Your task to perform on an android device: Go to ESPN.com Image 0: 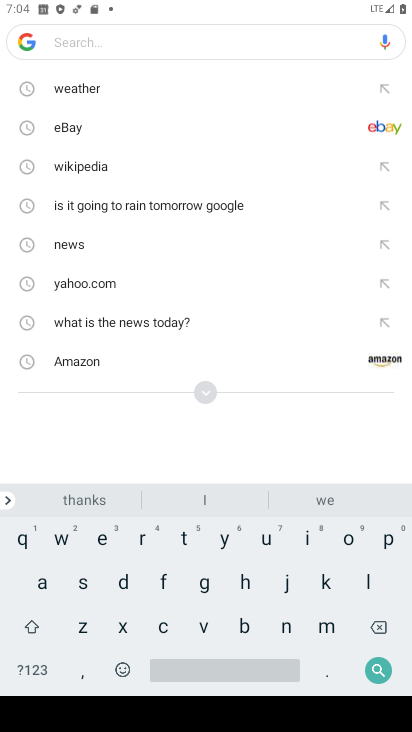
Step 0: press home button
Your task to perform on an android device: Go to ESPN.com Image 1: 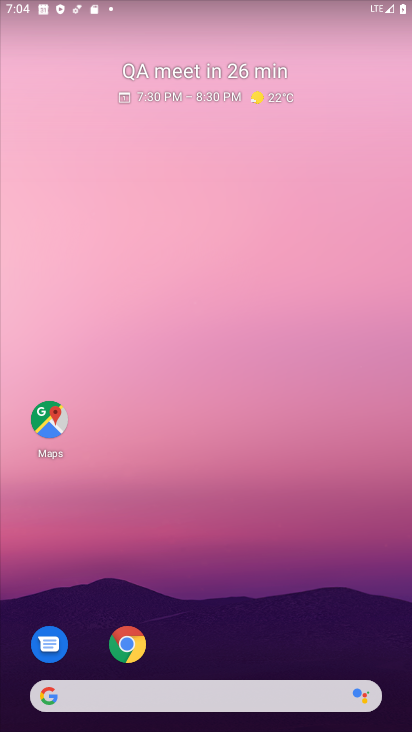
Step 1: drag from (240, 703) to (239, 175)
Your task to perform on an android device: Go to ESPN.com Image 2: 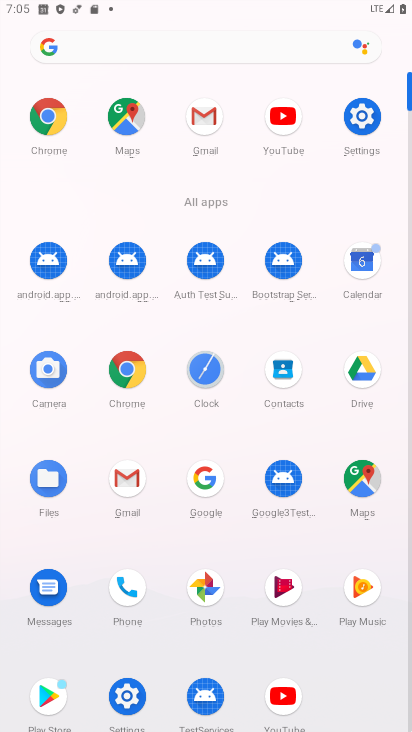
Step 2: click (35, 120)
Your task to perform on an android device: Go to ESPN.com Image 3: 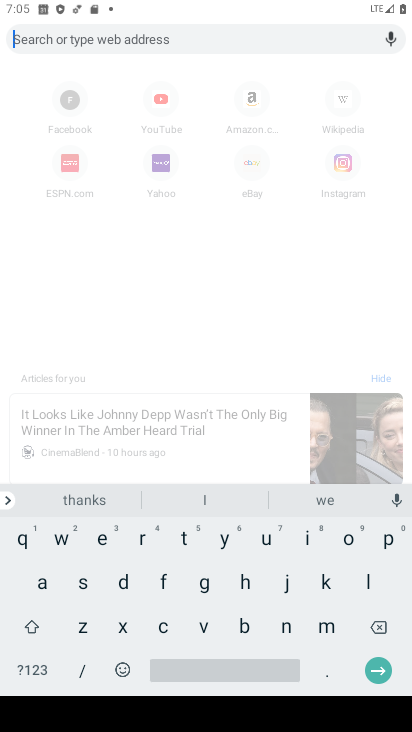
Step 3: click (102, 543)
Your task to perform on an android device: Go to ESPN.com Image 4: 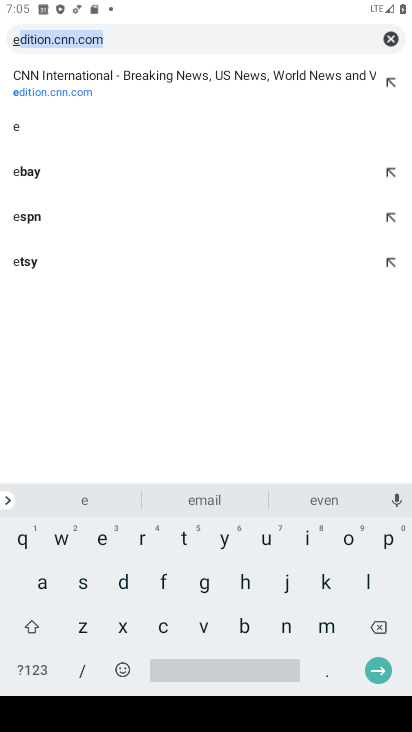
Step 4: click (84, 590)
Your task to perform on an android device: Go to ESPN.com Image 5: 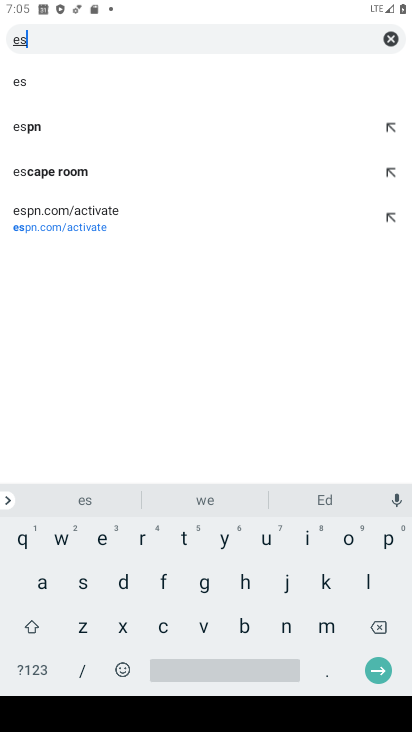
Step 5: click (46, 124)
Your task to perform on an android device: Go to ESPN.com Image 6: 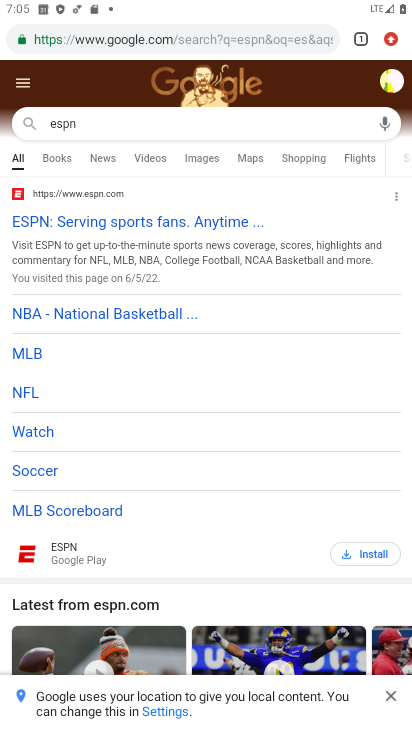
Step 6: click (77, 227)
Your task to perform on an android device: Go to ESPN.com Image 7: 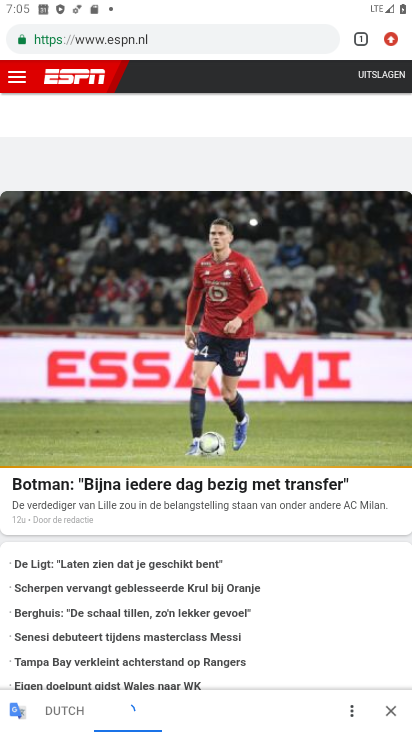
Step 7: task complete